Your task to perform on an android device: make emails show in primary in the gmail app Image 0: 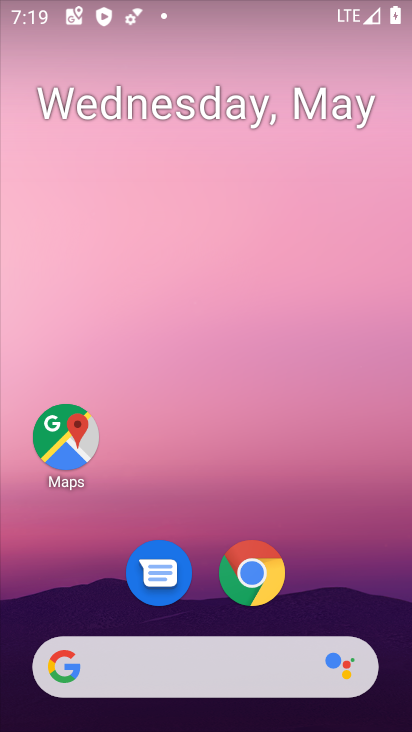
Step 0: drag from (312, 591) to (222, 170)
Your task to perform on an android device: make emails show in primary in the gmail app Image 1: 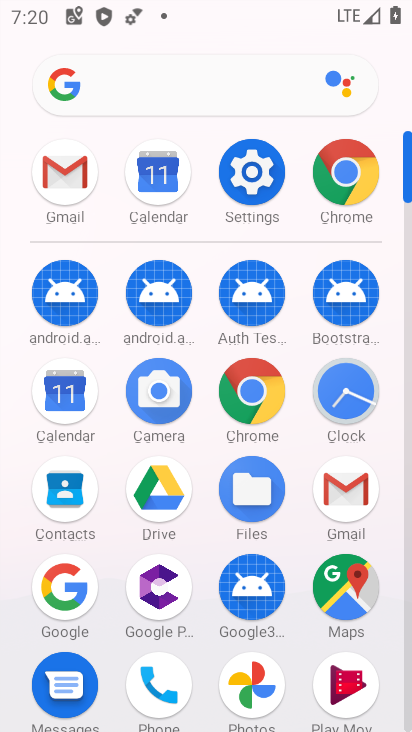
Step 1: click (339, 503)
Your task to perform on an android device: make emails show in primary in the gmail app Image 2: 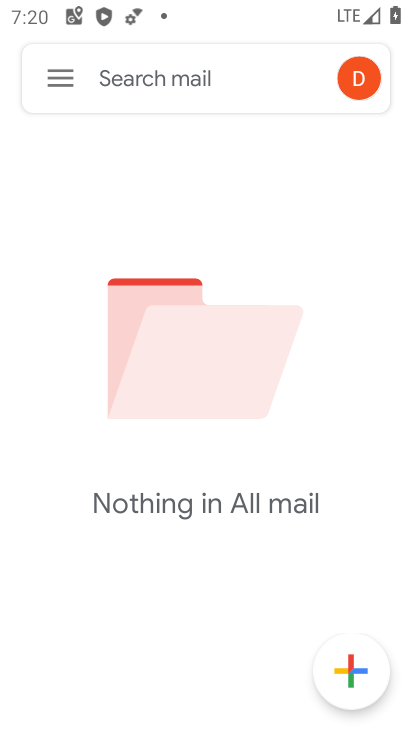
Step 2: click (64, 81)
Your task to perform on an android device: make emails show in primary in the gmail app Image 3: 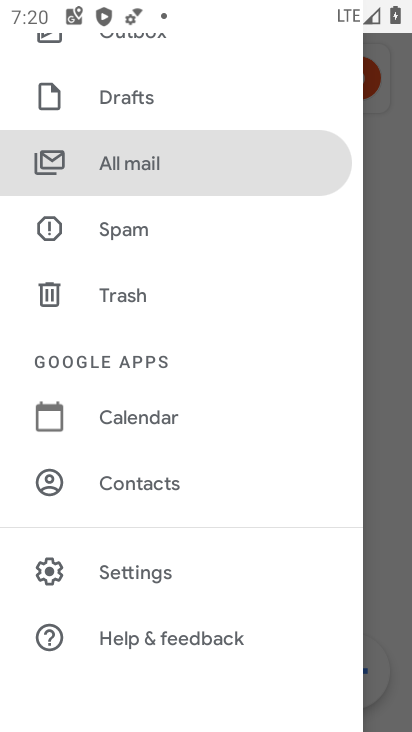
Step 3: click (136, 574)
Your task to perform on an android device: make emails show in primary in the gmail app Image 4: 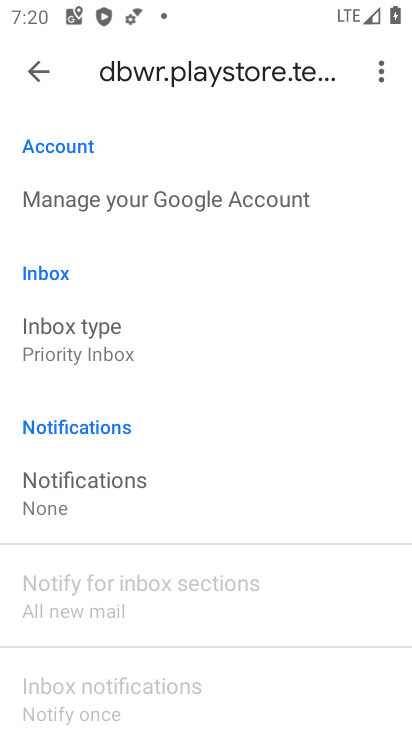
Step 4: task complete